Your task to perform on an android device: Search for "usb-c to usb-b" on walmart, select the first entry, and add it to the cart. Image 0: 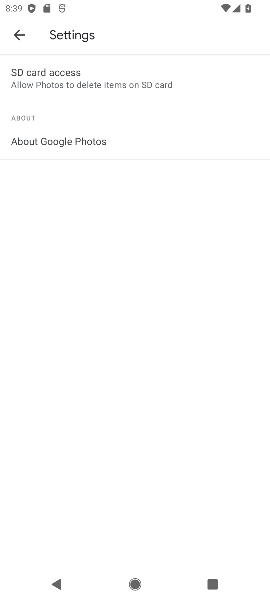
Step 0: press home button
Your task to perform on an android device: Search for "usb-c to usb-b" on walmart, select the first entry, and add it to the cart. Image 1: 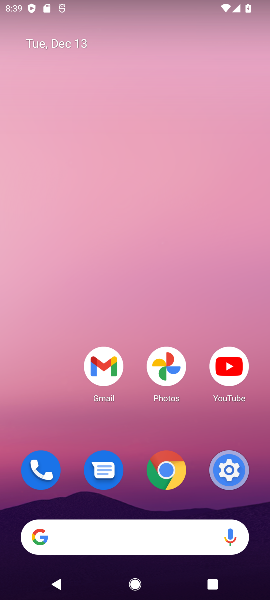
Step 1: click (57, 539)
Your task to perform on an android device: Search for "usb-c to usb-b" on walmart, select the first entry, and add it to the cart. Image 2: 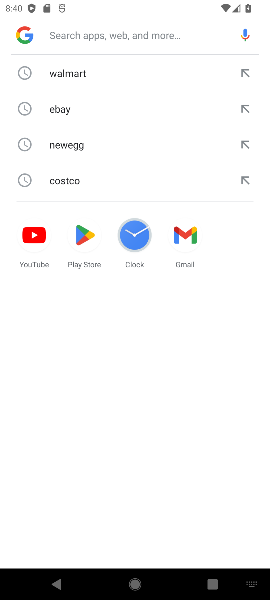
Step 2: type "walmart"
Your task to perform on an android device: Search for "usb-c to usb-b" on walmart, select the first entry, and add it to the cart. Image 3: 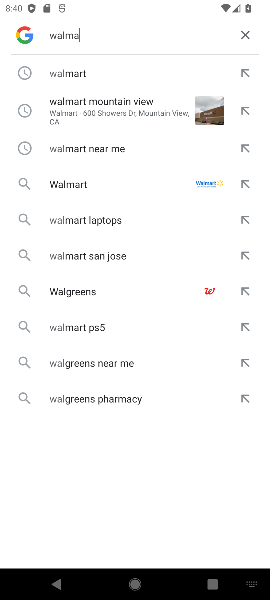
Step 3: press enter
Your task to perform on an android device: Search for "usb-c to usb-b" on walmart, select the first entry, and add it to the cart. Image 4: 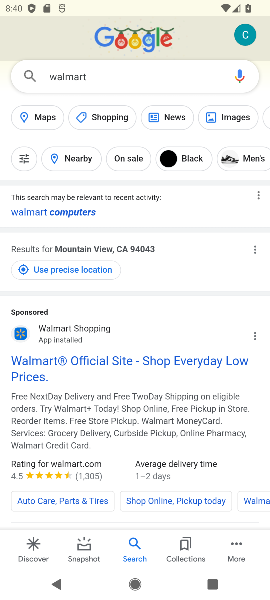
Step 4: click (37, 360)
Your task to perform on an android device: Search for "usb-c to usb-b" on walmart, select the first entry, and add it to the cart. Image 5: 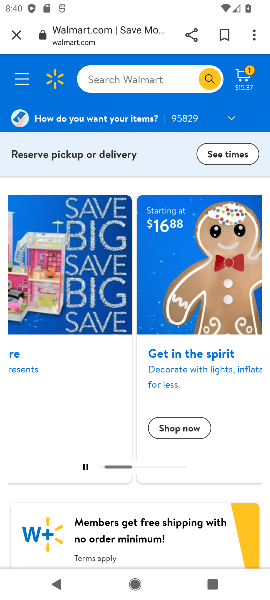
Step 5: click (101, 80)
Your task to perform on an android device: Search for "usb-c to usb-b" on walmart, select the first entry, and add it to the cart. Image 6: 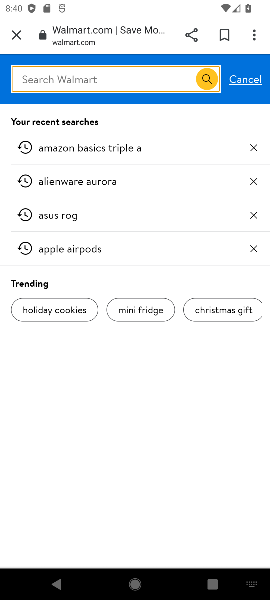
Step 6: type "usb-c to usb-b"
Your task to perform on an android device: Search for "usb-c to usb-b" on walmart, select the first entry, and add it to the cart. Image 7: 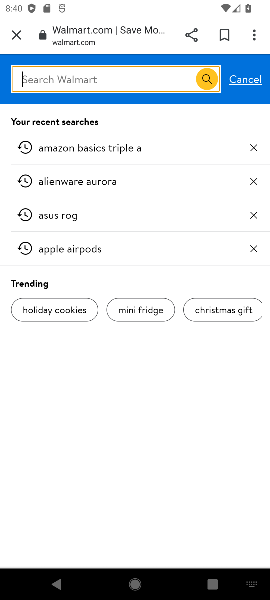
Step 7: press enter
Your task to perform on an android device: Search for "usb-c to usb-b" on walmart, select the first entry, and add it to the cart. Image 8: 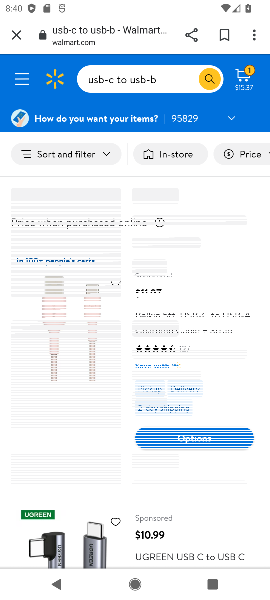
Step 8: drag from (159, 491) to (182, 245)
Your task to perform on an android device: Search for "usb-c to usb-b" on walmart, select the first entry, and add it to the cart. Image 9: 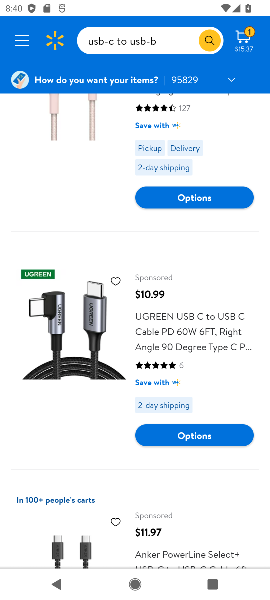
Step 9: click (180, 345)
Your task to perform on an android device: Search for "usb-c to usb-b" on walmart, select the first entry, and add it to the cart. Image 10: 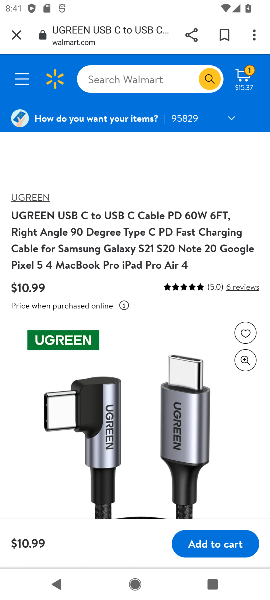
Step 10: click (200, 545)
Your task to perform on an android device: Search for "usb-c to usb-b" on walmart, select the first entry, and add it to the cart. Image 11: 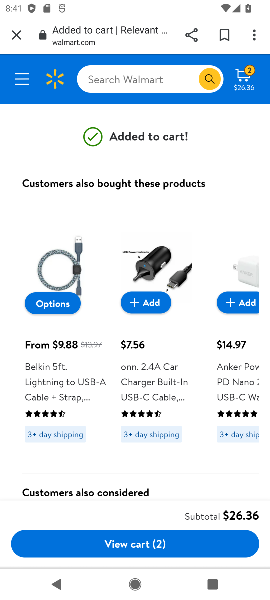
Step 11: task complete